Your task to perform on an android device: Do I have any events tomorrow? Image 0: 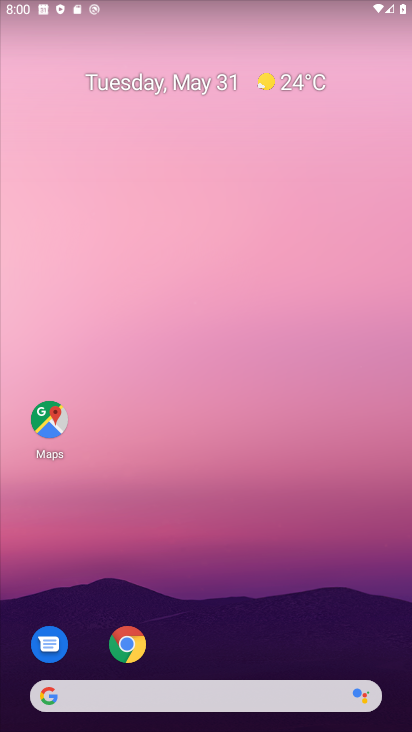
Step 0: drag from (188, 486) to (201, 161)
Your task to perform on an android device: Do I have any events tomorrow? Image 1: 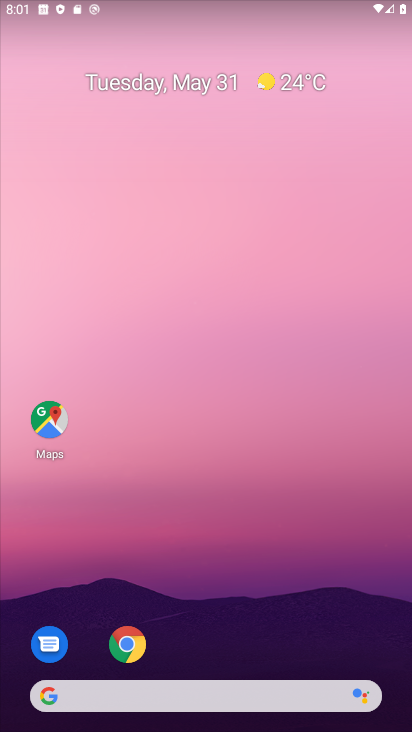
Step 1: drag from (296, 612) to (303, 234)
Your task to perform on an android device: Do I have any events tomorrow? Image 2: 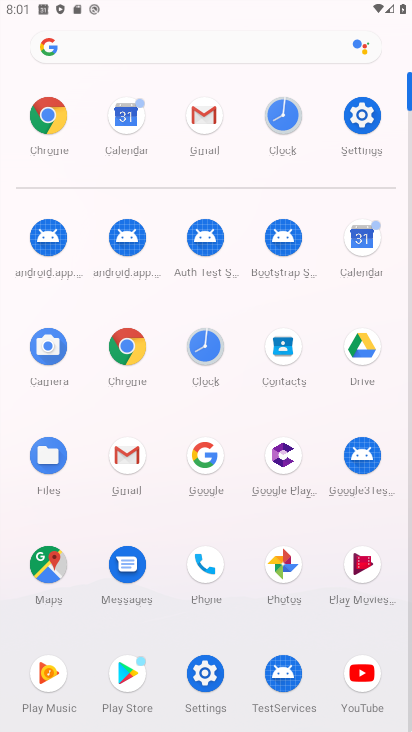
Step 2: click (139, 362)
Your task to perform on an android device: Do I have any events tomorrow? Image 3: 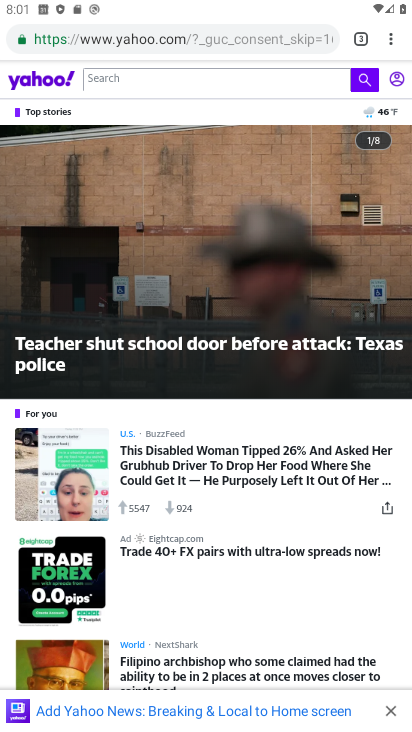
Step 3: click (164, 47)
Your task to perform on an android device: Do I have any events tomorrow? Image 4: 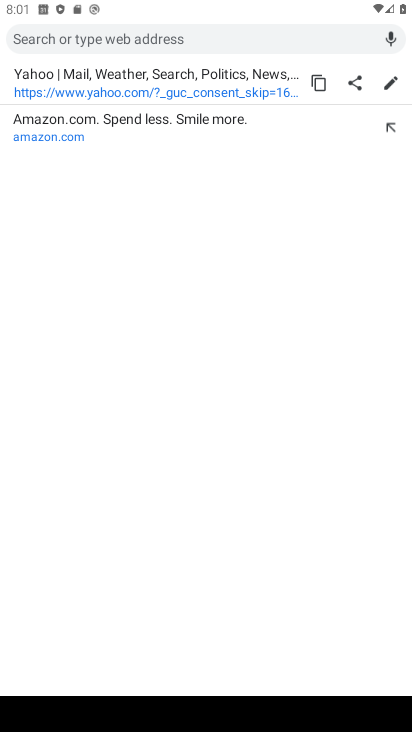
Step 4: type "do i have events tomorrow"
Your task to perform on an android device: Do I have any events tomorrow? Image 5: 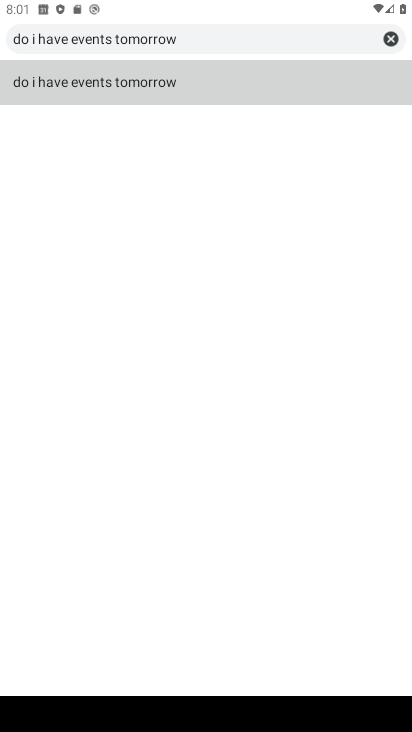
Step 5: click (206, 88)
Your task to perform on an android device: Do I have any events tomorrow? Image 6: 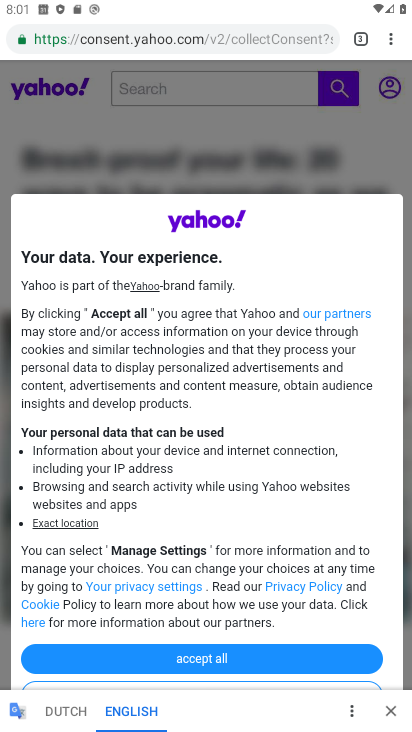
Step 6: click (255, 665)
Your task to perform on an android device: Do I have any events tomorrow? Image 7: 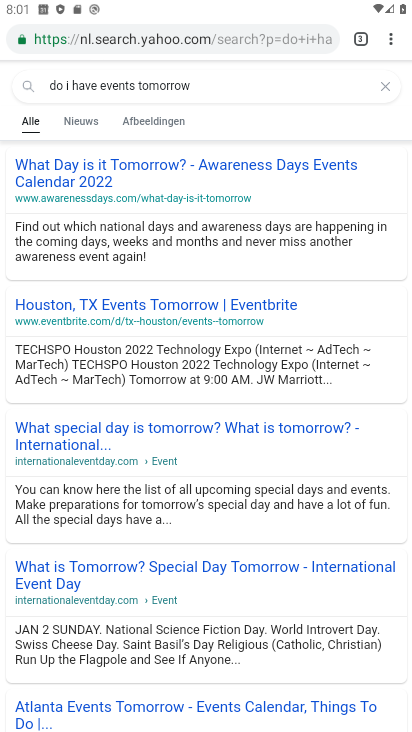
Step 7: click (255, 665)
Your task to perform on an android device: Do I have any events tomorrow? Image 8: 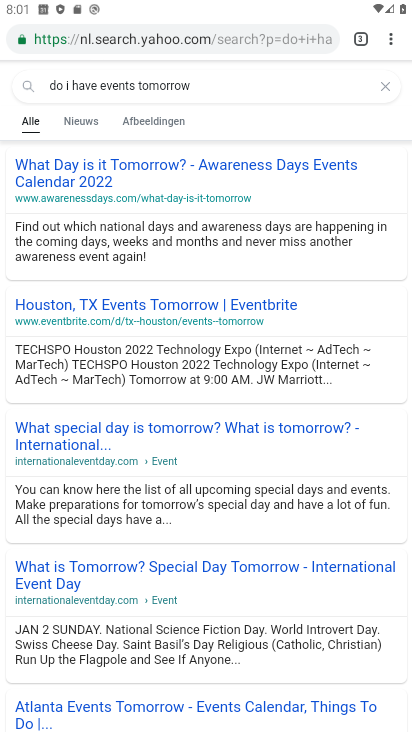
Step 8: task complete